Your task to perform on an android device: When is my next meeting? Image 0: 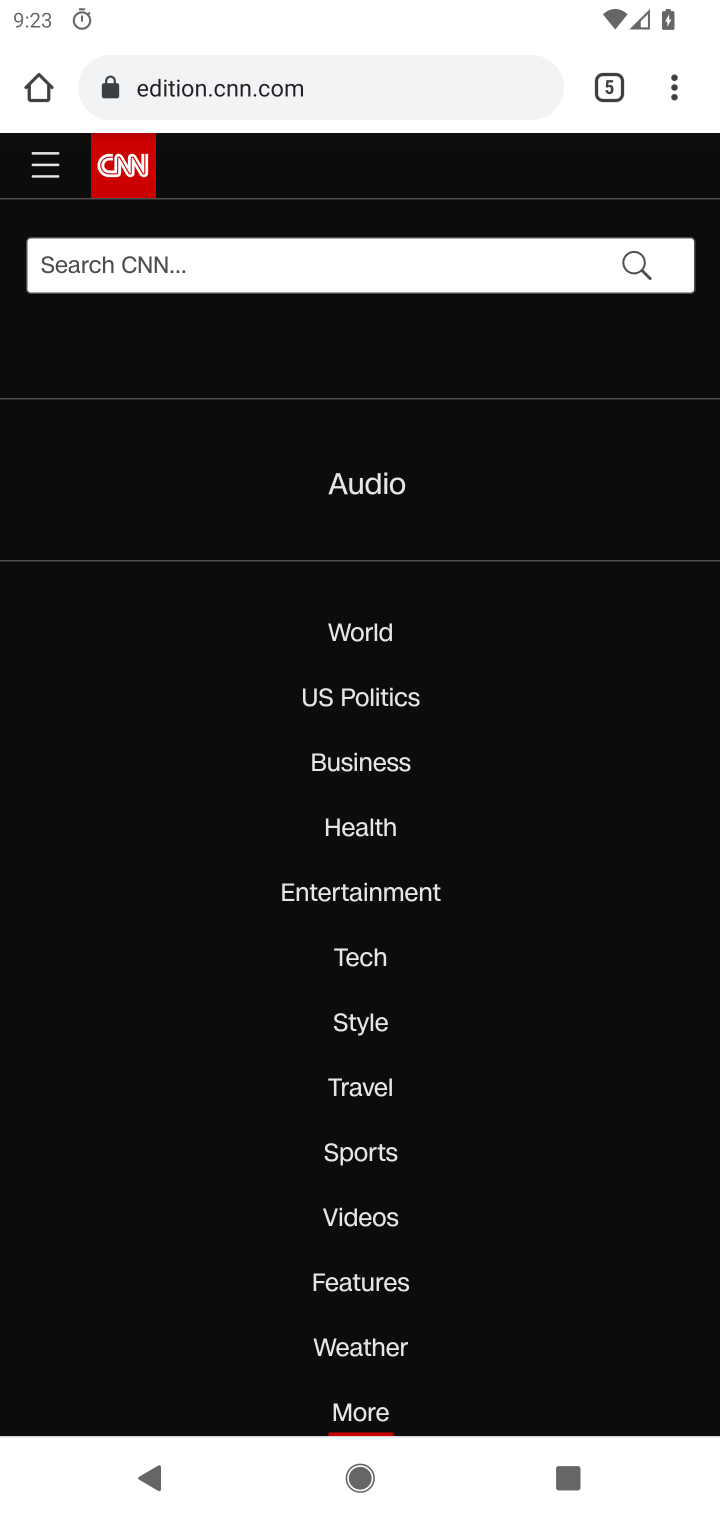
Step 0: press home button
Your task to perform on an android device: When is my next meeting? Image 1: 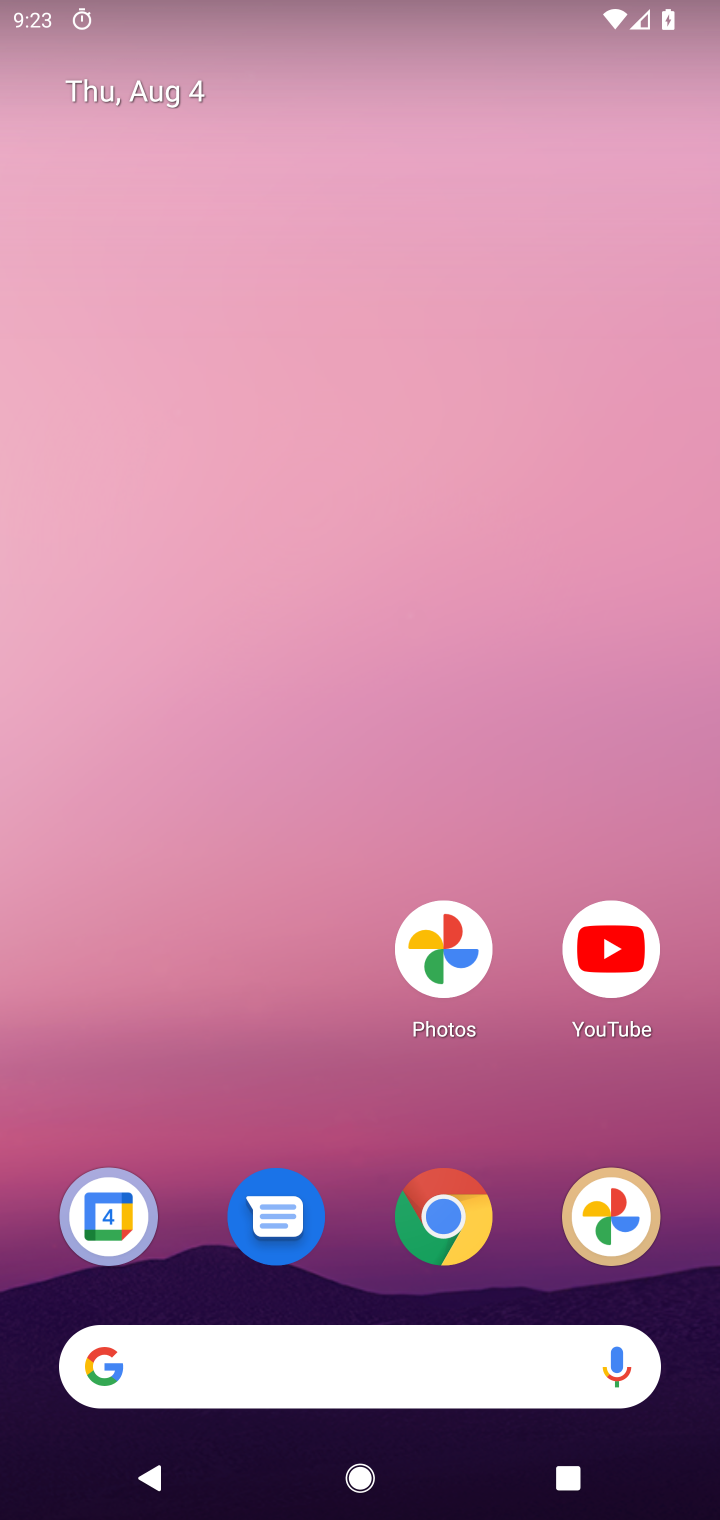
Step 1: drag from (333, 1054) to (300, 189)
Your task to perform on an android device: When is my next meeting? Image 2: 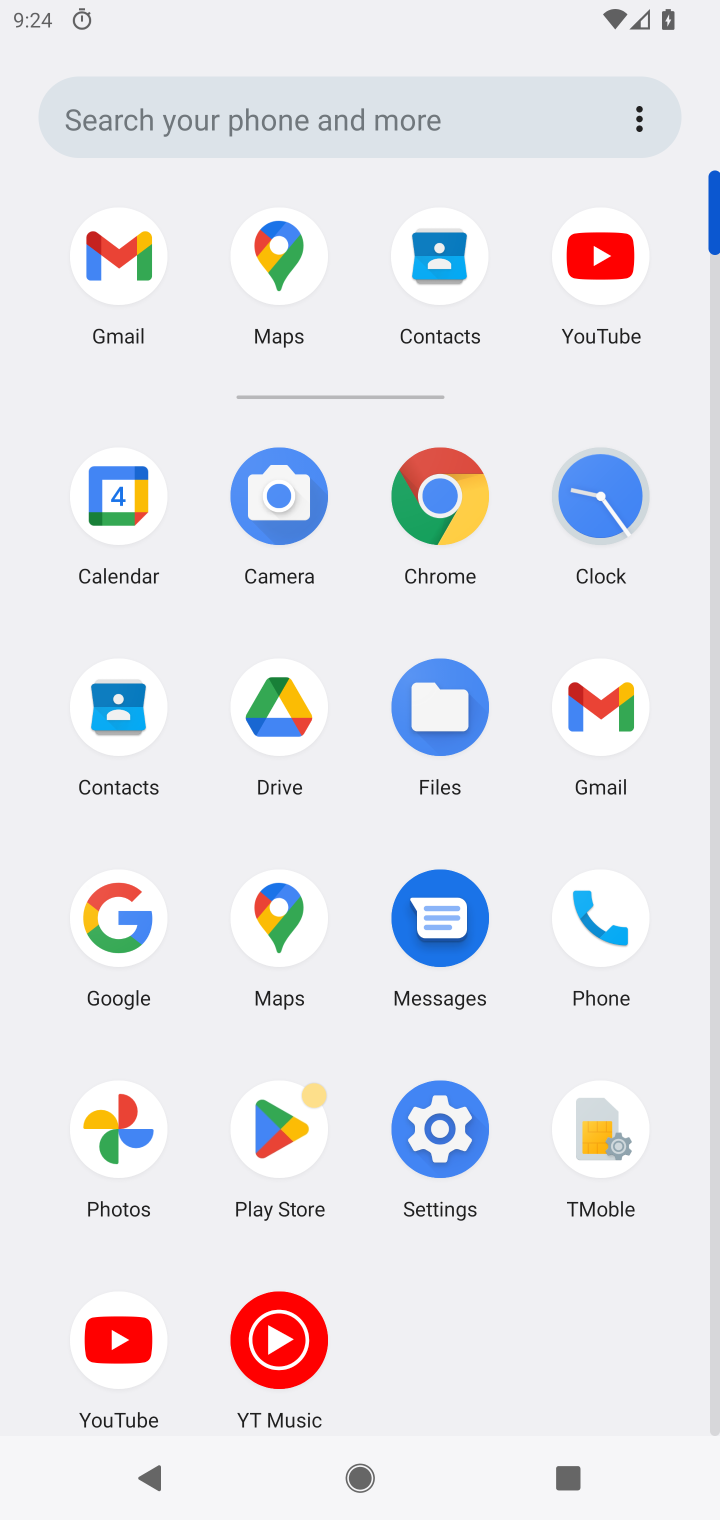
Step 2: click (116, 526)
Your task to perform on an android device: When is my next meeting? Image 3: 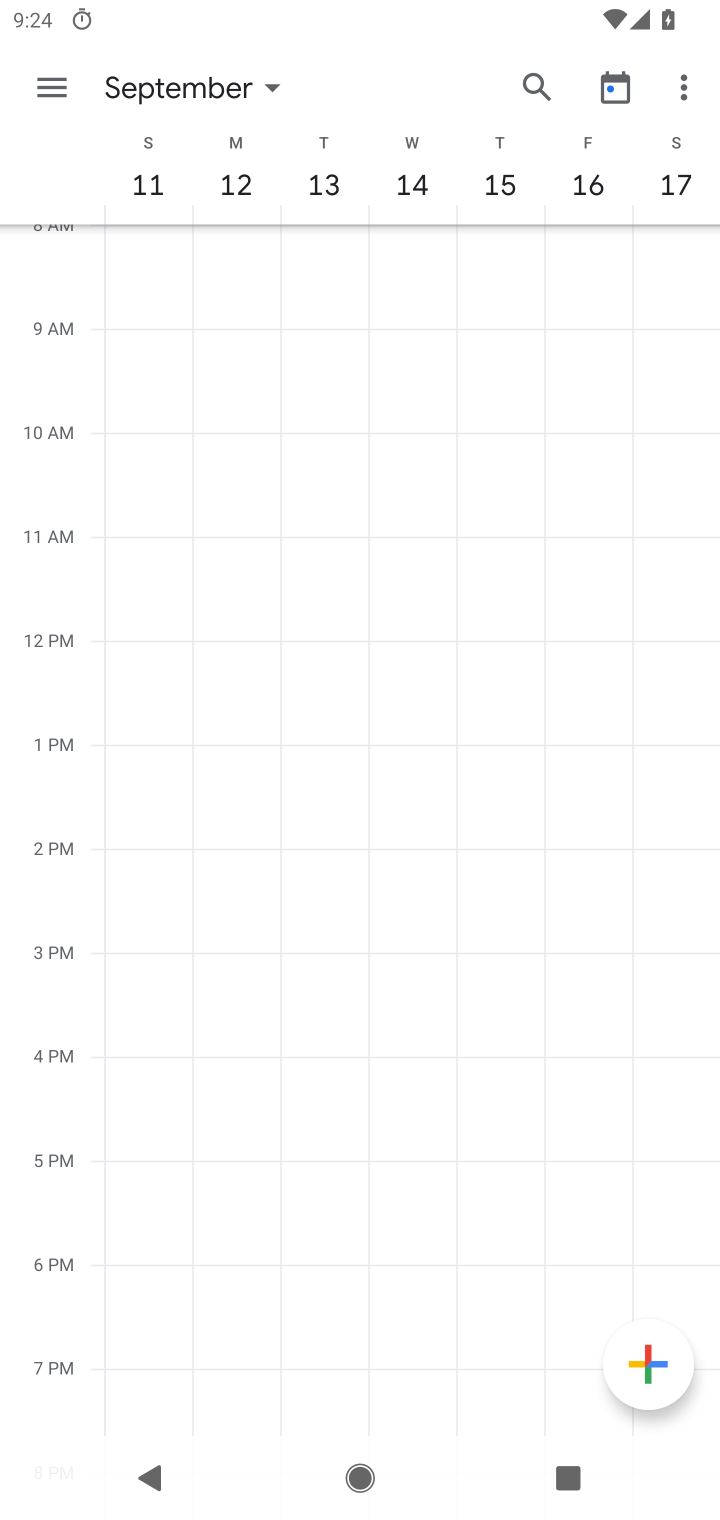
Step 3: click (266, 77)
Your task to perform on an android device: When is my next meeting? Image 4: 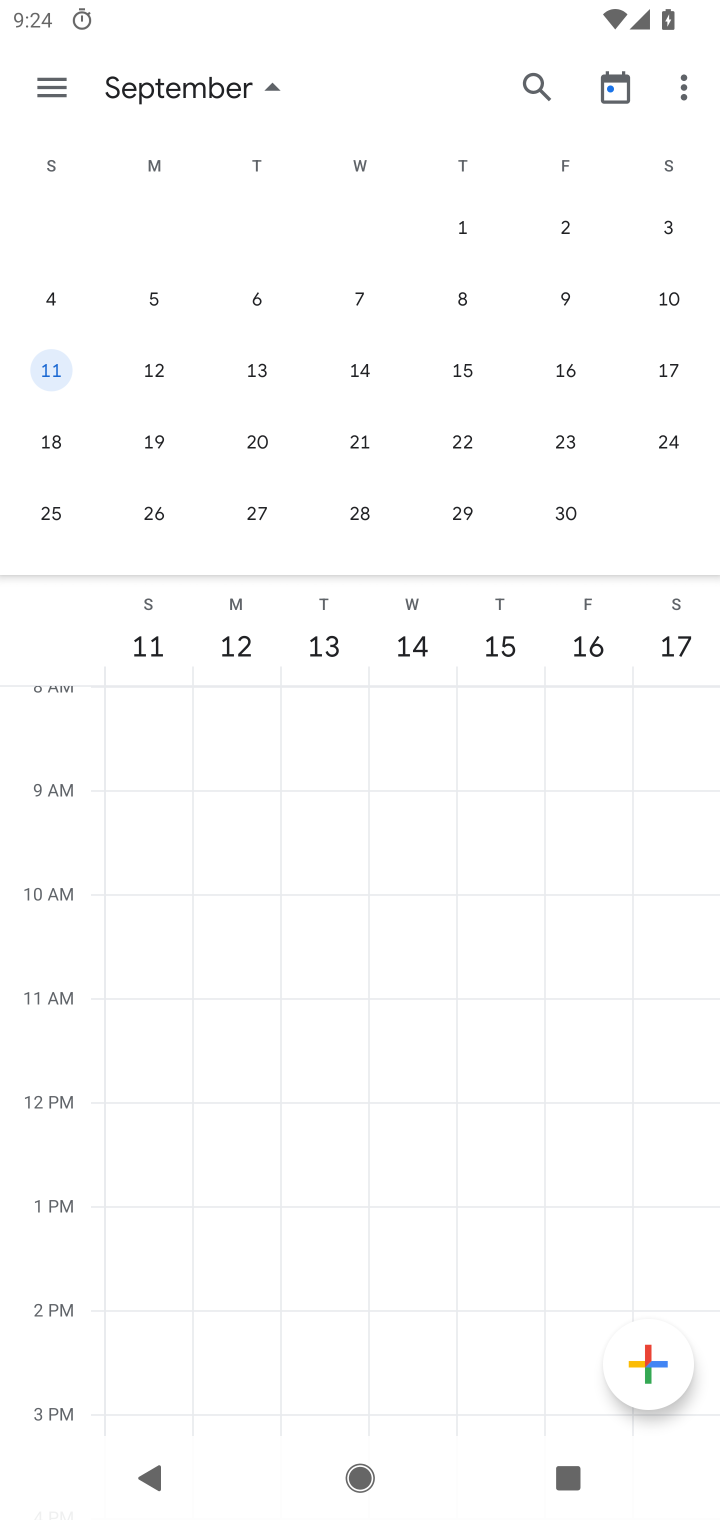
Step 4: drag from (289, 441) to (535, 418)
Your task to perform on an android device: When is my next meeting? Image 5: 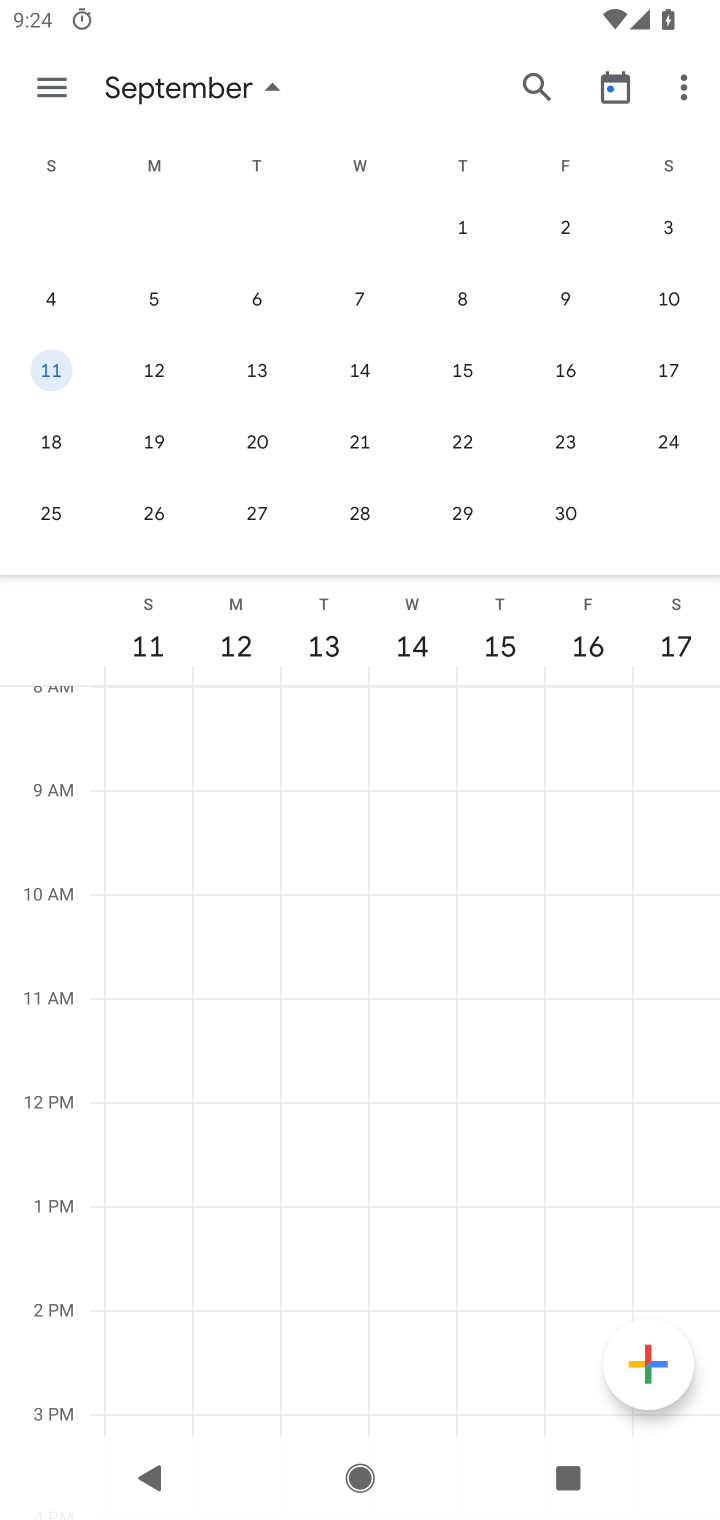
Step 5: click (493, 397)
Your task to perform on an android device: When is my next meeting? Image 6: 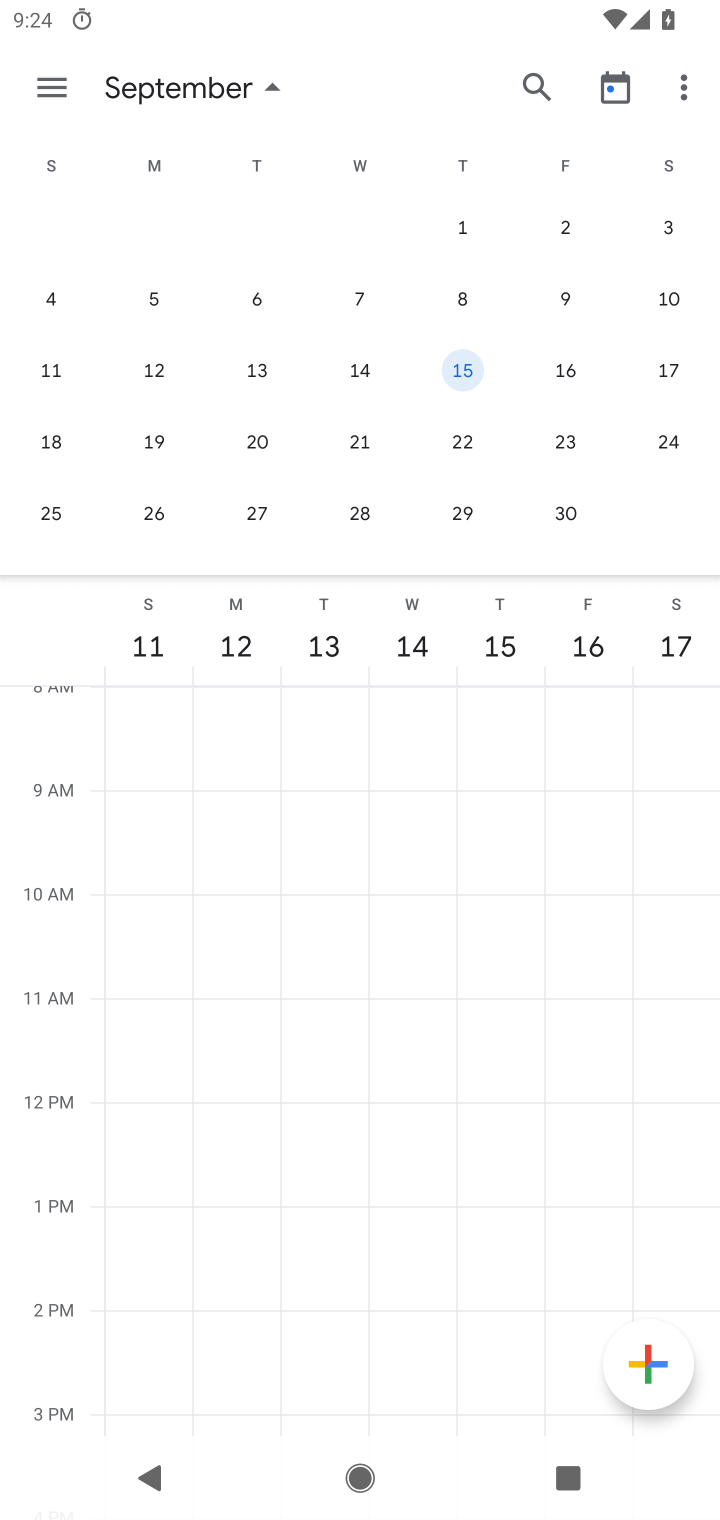
Step 6: drag from (158, 356) to (562, 310)
Your task to perform on an android device: When is my next meeting? Image 7: 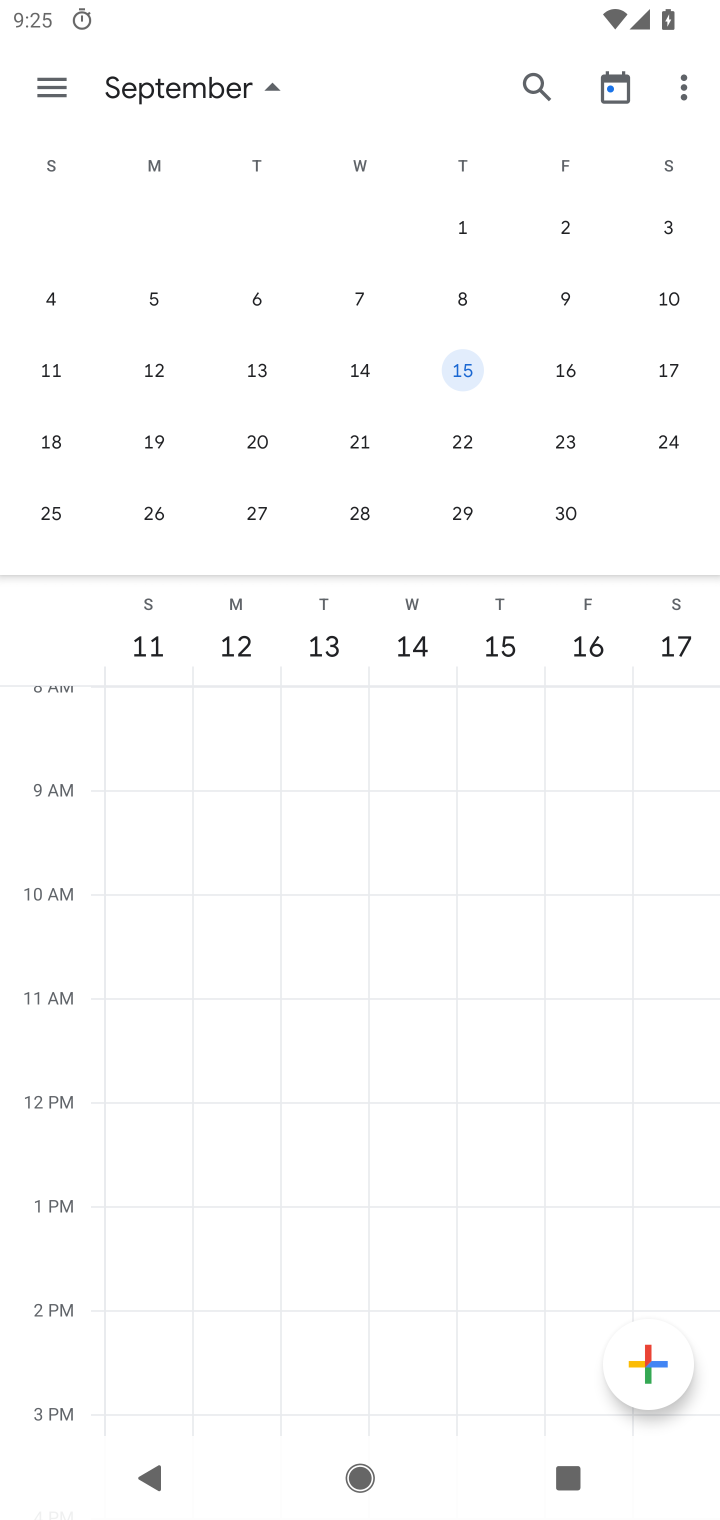
Step 7: drag from (138, 362) to (607, 360)
Your task to perform on an android device: When is my next meeting? Image 8: 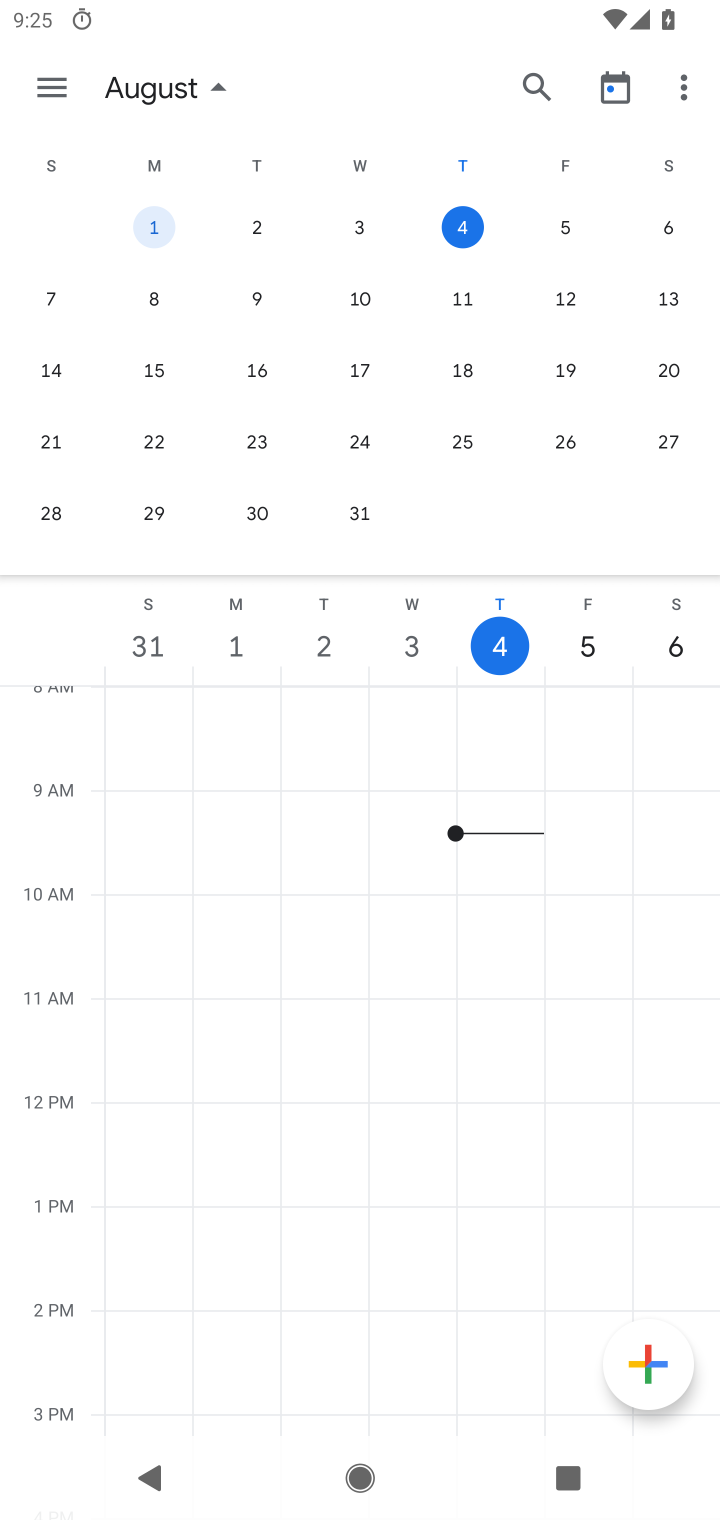
Step 8: click (564, 226)
Your task to perform on an android device: When is my next meeting? Image 9: 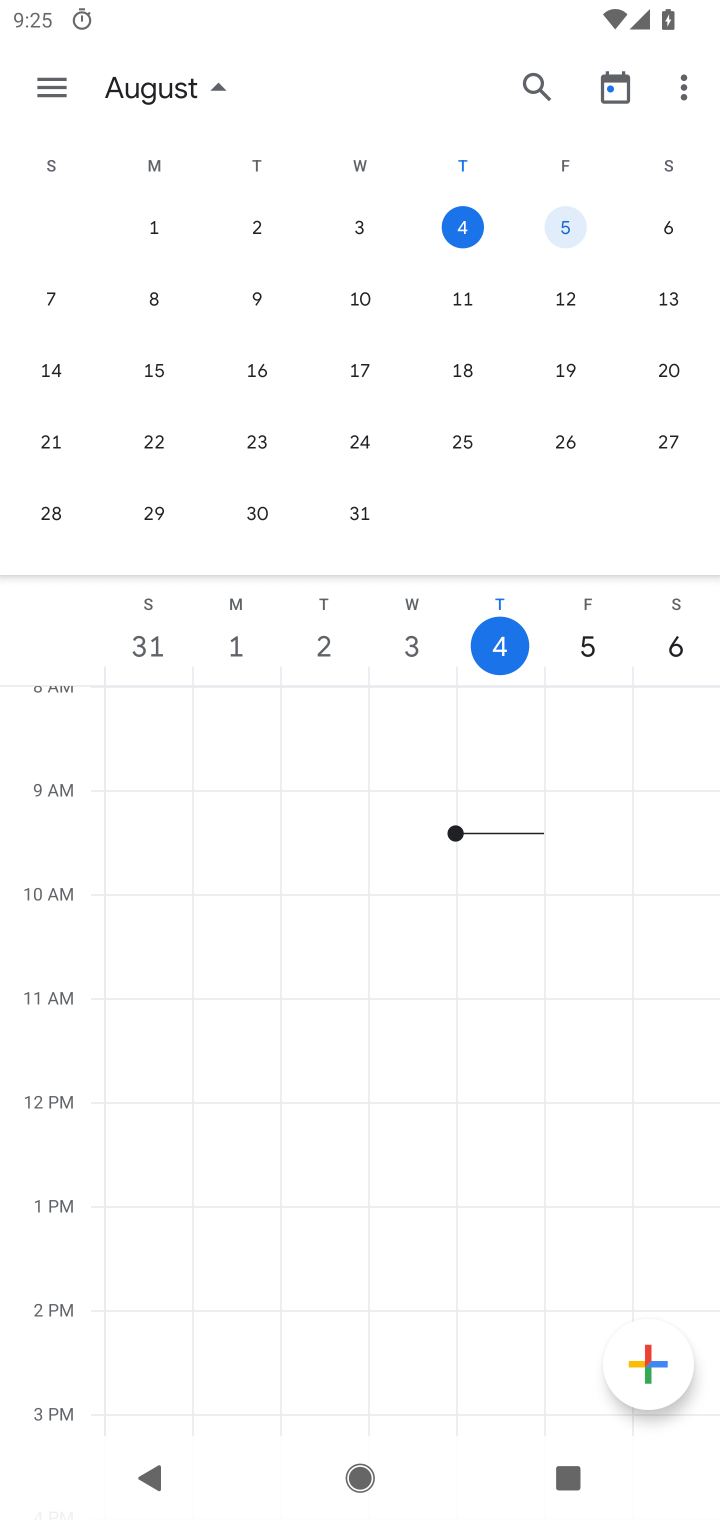
Step 9: click (578, 643)
Your task to perform on an android device: When is my next meeting? Image 10: 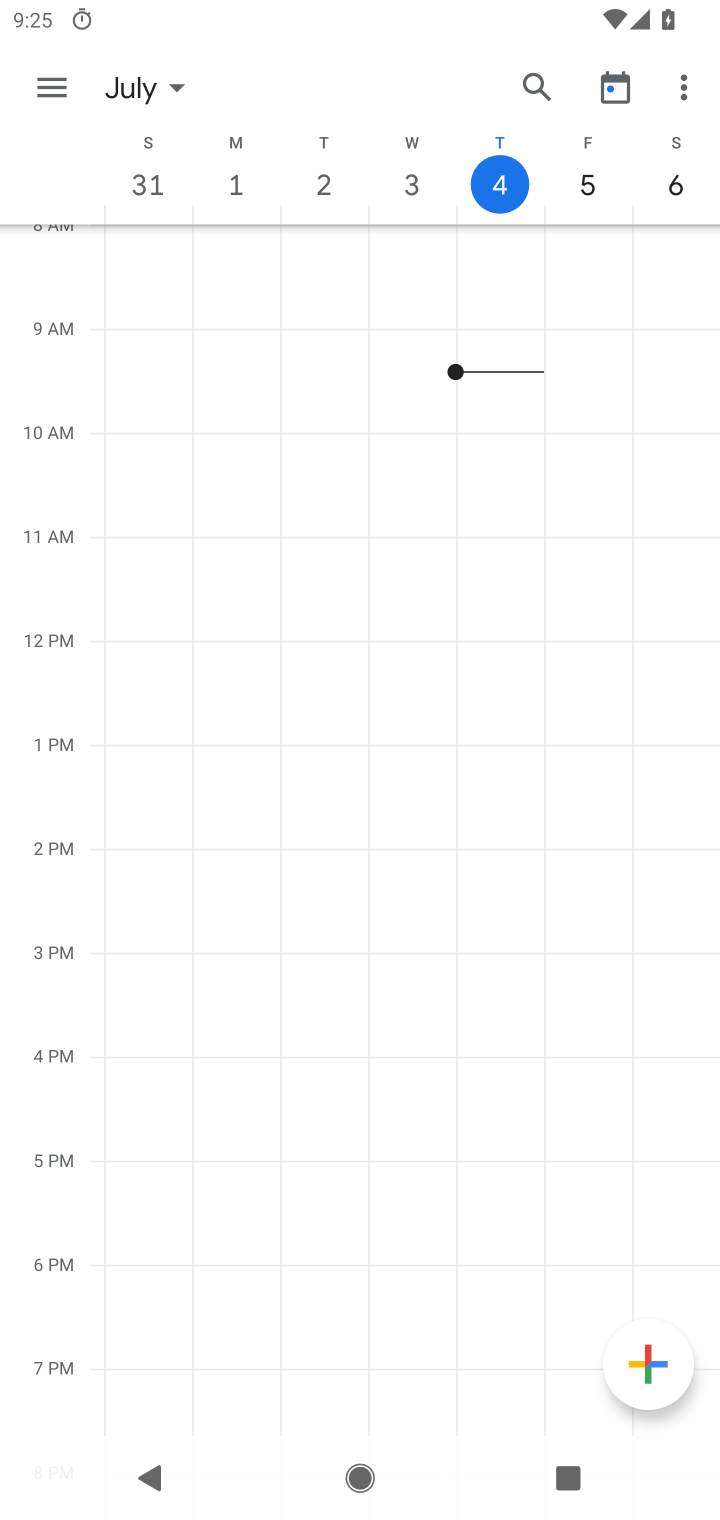
Step 10: task complete